Your task to perform on an android device: Toggle the flashlight Image 0: 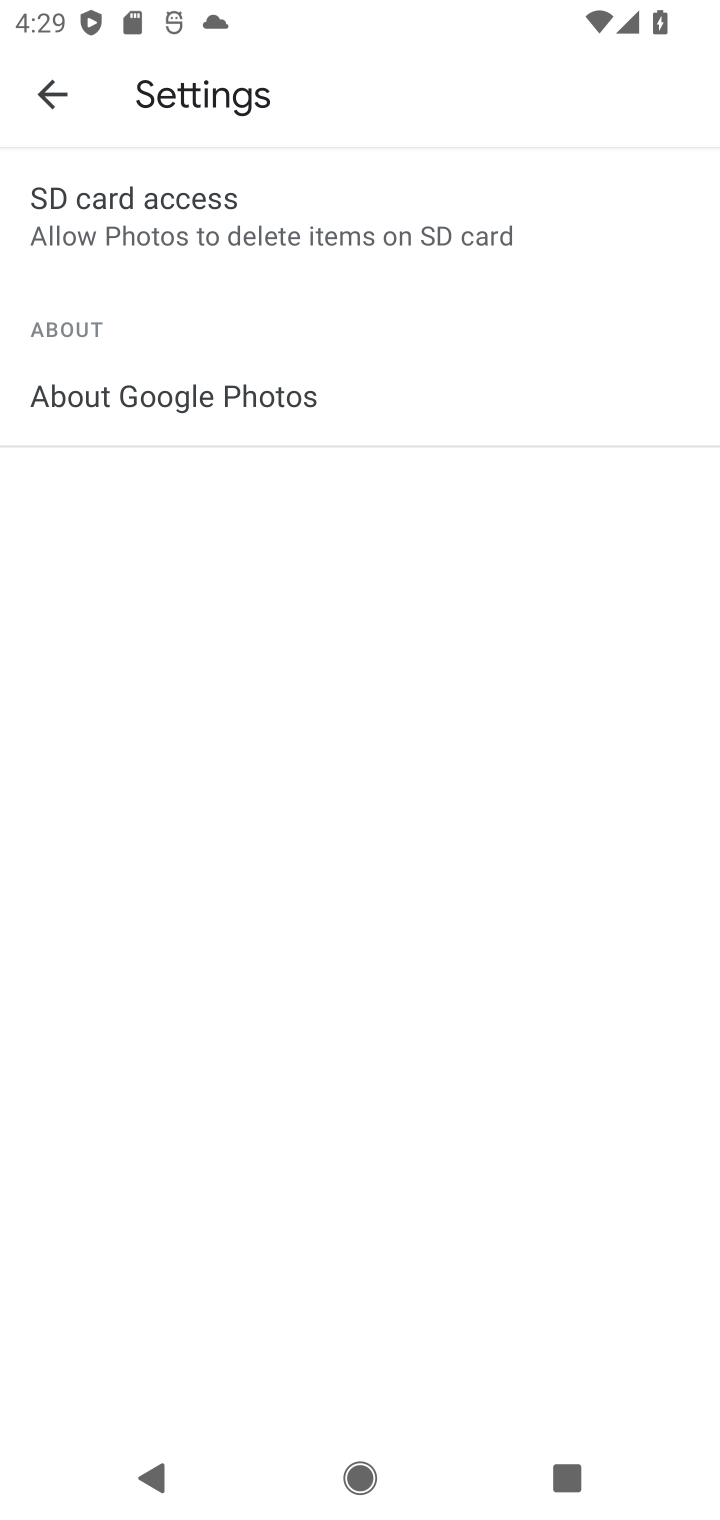
Step 0: click (46, 80)
Your task to perform on an android device: Toggle the flashlight Image 1: 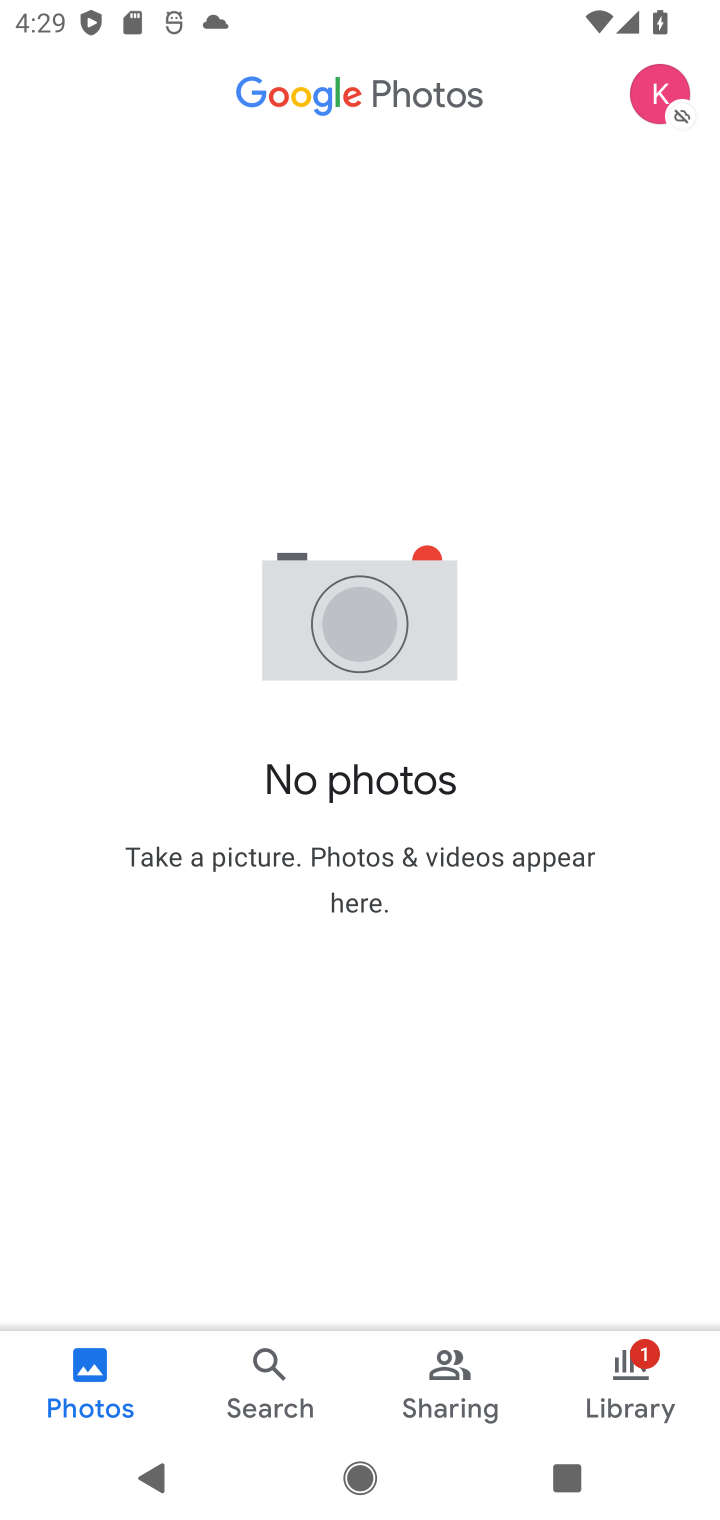
Step 1: press home button
Your task to perform on an android device: Toggle the flashlight Image 2: 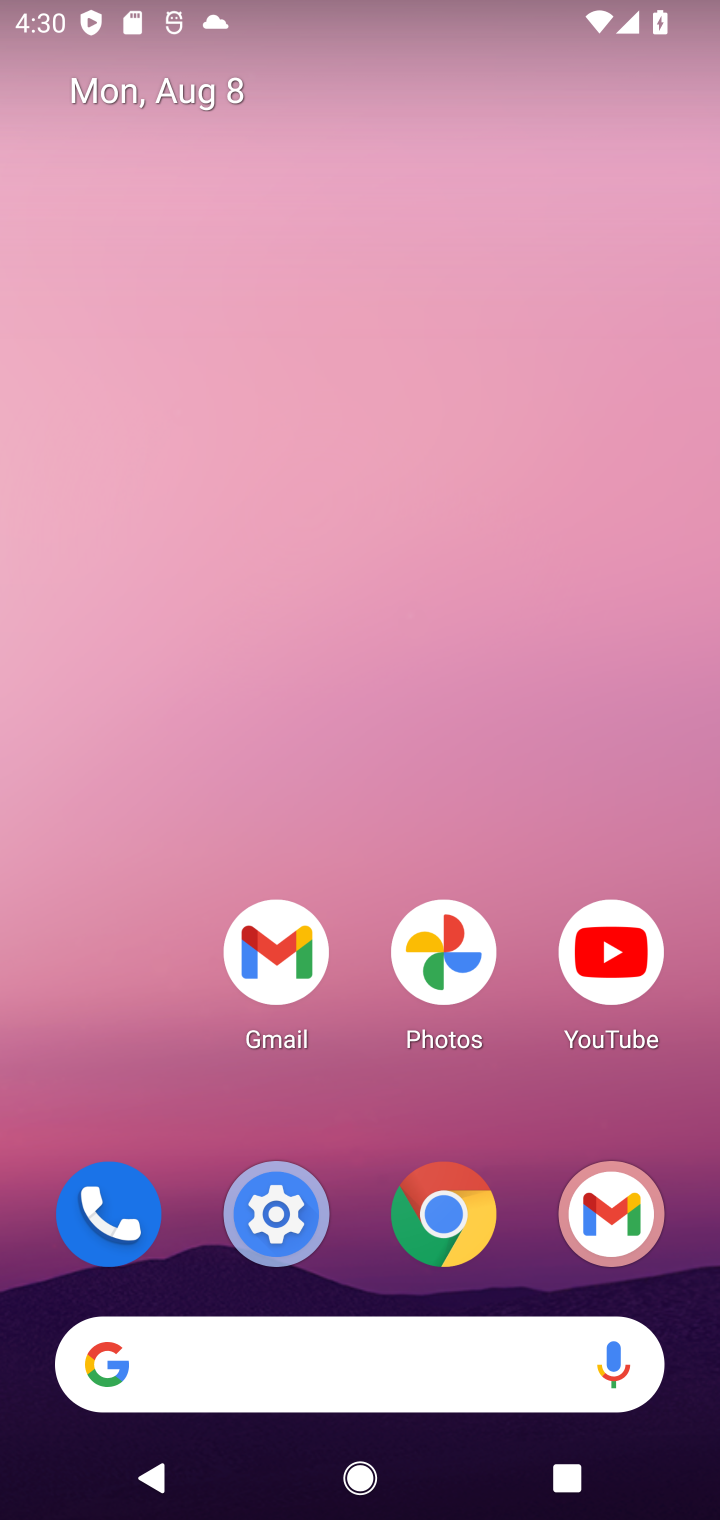
Step 2: drag from (402, 1051) to (405, 358)
Your task to perform on an android device: Toggle the flashlight Image 3: 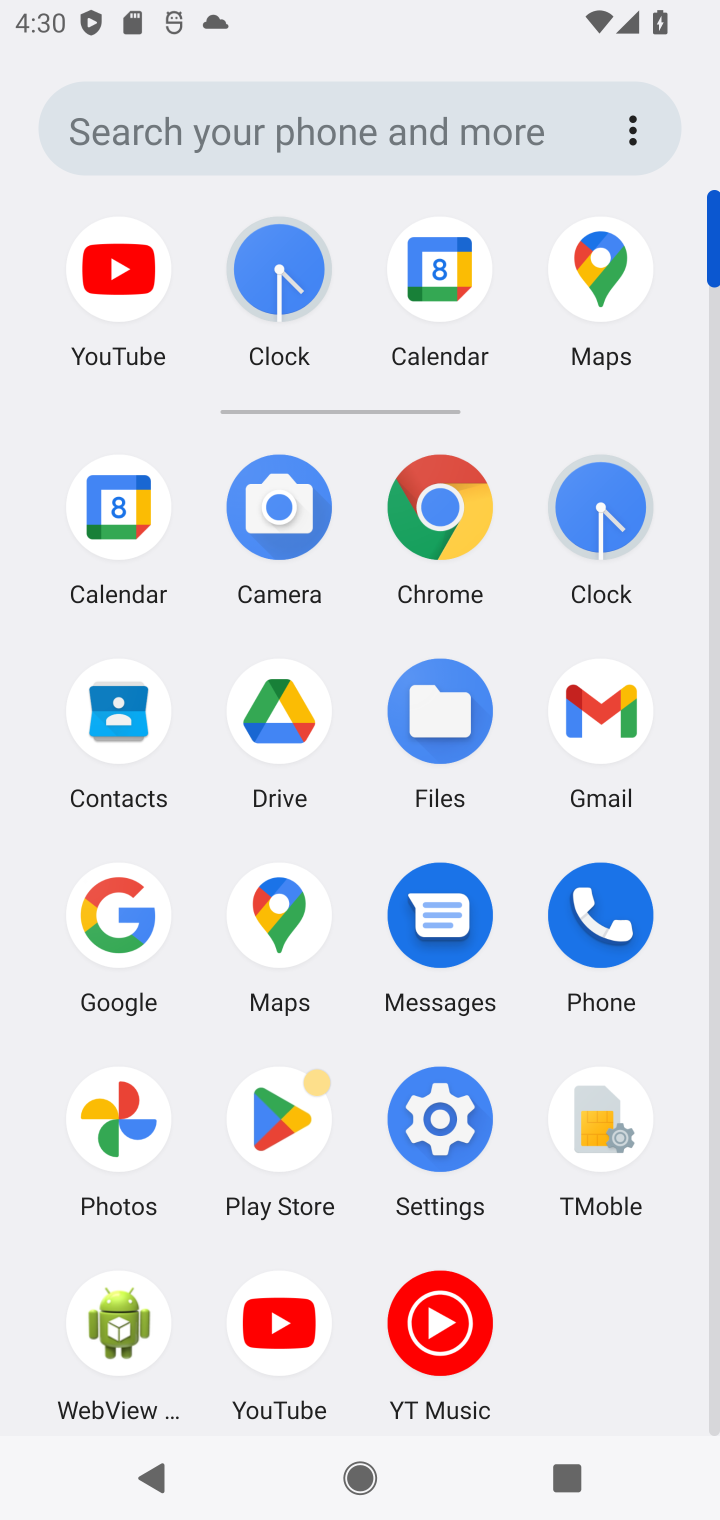
Step 3: click (432, 1108)
Your task to perform on an android device: Toggle the flashlight Image 4: 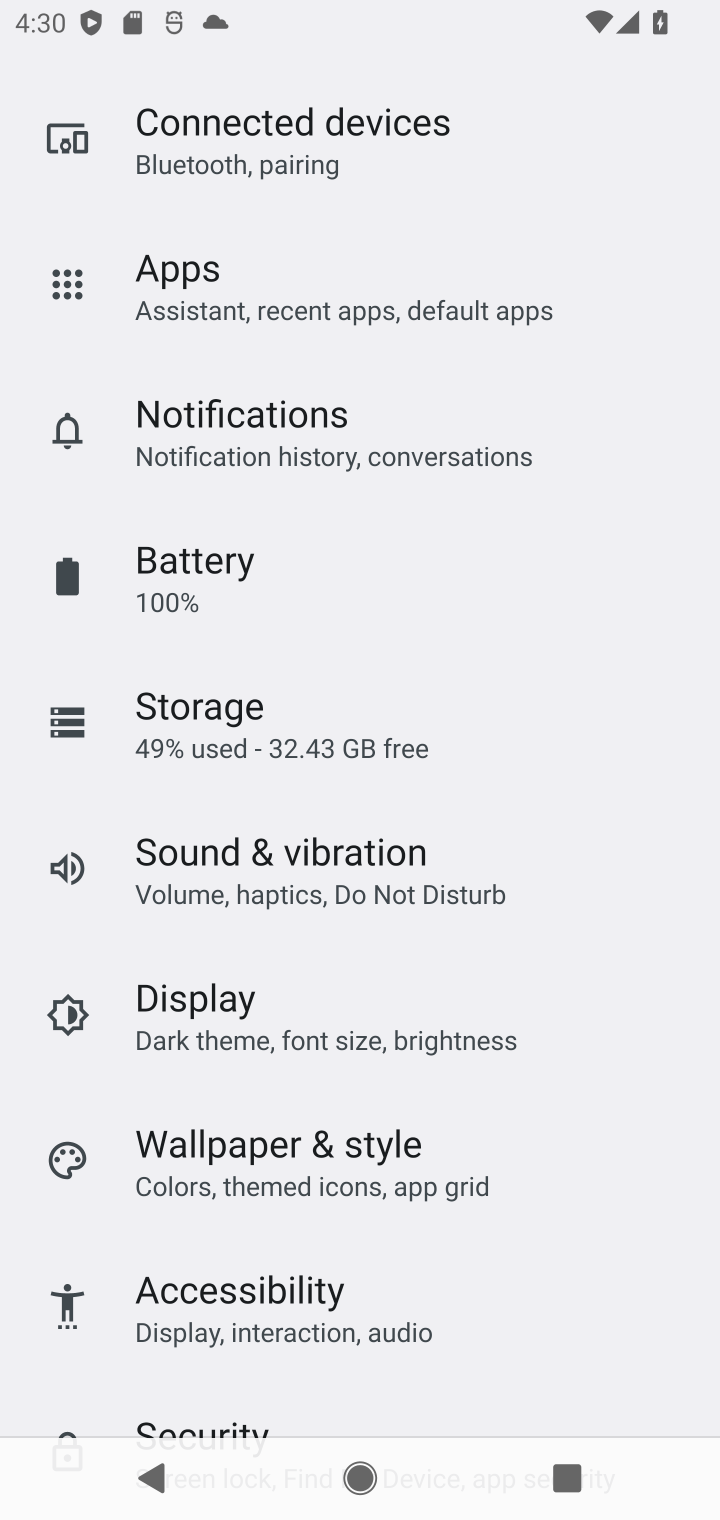
Step 4: task complete